Your task to perform on an android device: When is my next appointment? Image 0: 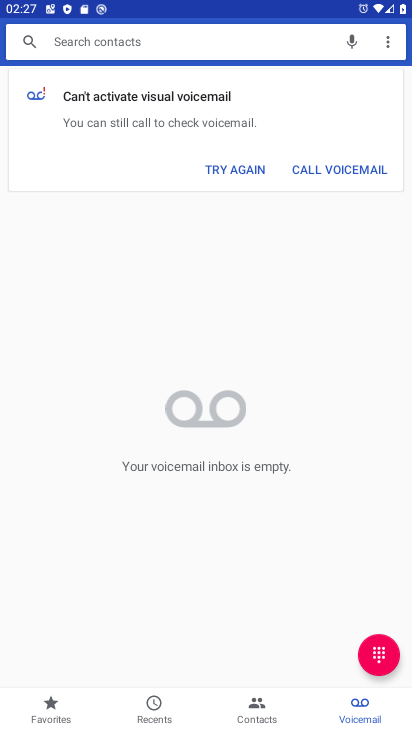
Step 0: press home button
Your task to perform on an android device: When is my next appointment? Image 1: 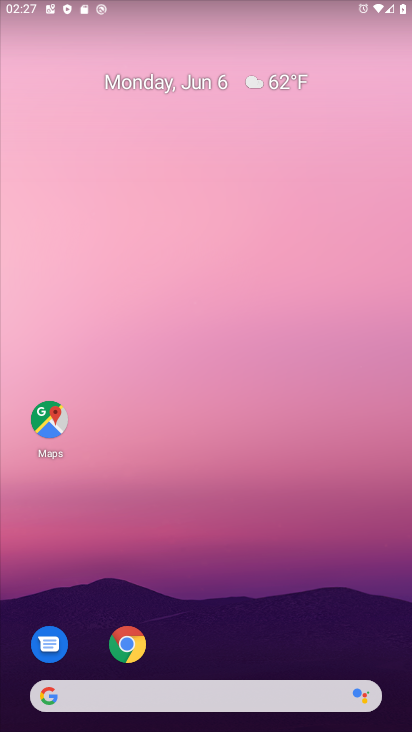
Step 1: drag from (159, 731) to (90, 121)
Your task to perform on an android device: When is my next appointment? Image 2: 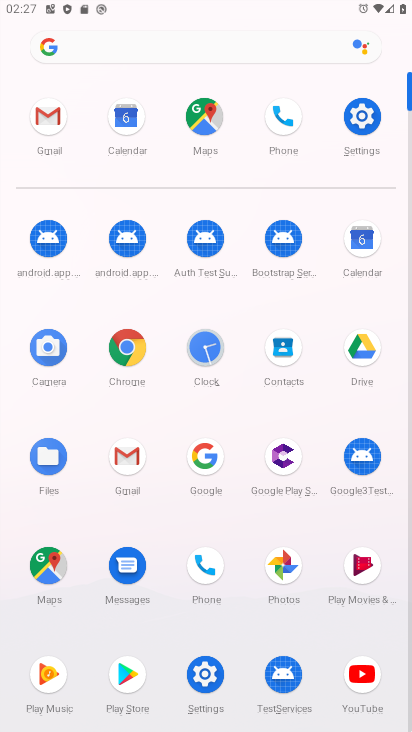
Step 2: click (364, 241)
Your task to perform on an android device: When is my next appointment? Image 3: 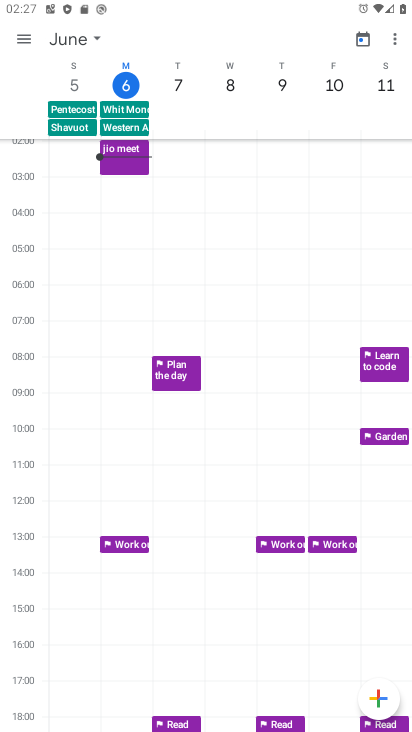
Step 3: click (129, 550)
Your task to perform on an android device: When is my next appointment? Image 4: 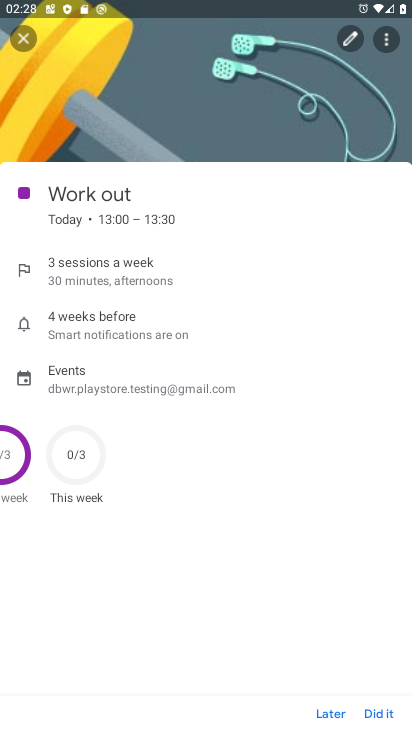
Step 4: task complete